Your task to perform on an android device: change the clock display to show seconds Image 0: 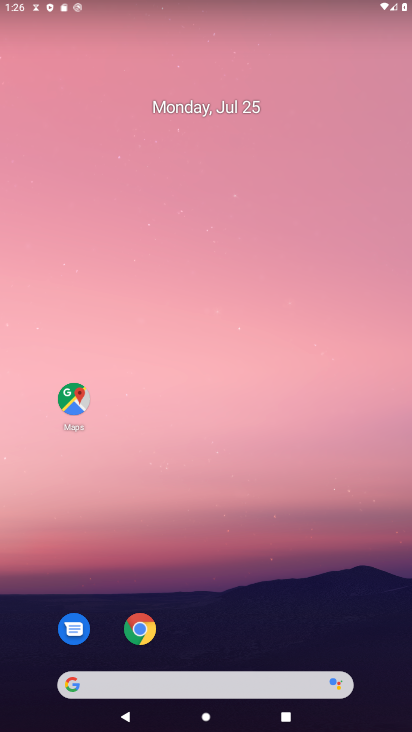
Step 0: drag from (205, 634) to (307, 147)
Your task to perform on an android device: change the clock display to show seconds Image 1: 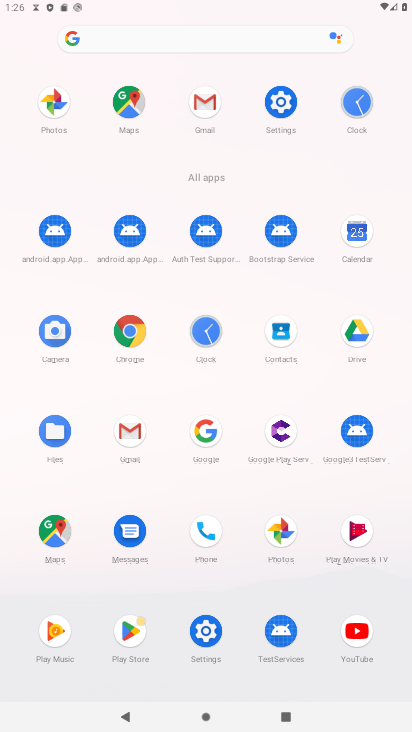
Step 1: click (199, 333)
Your task to perform on an android device: change the clock display to show seconds Image 2: 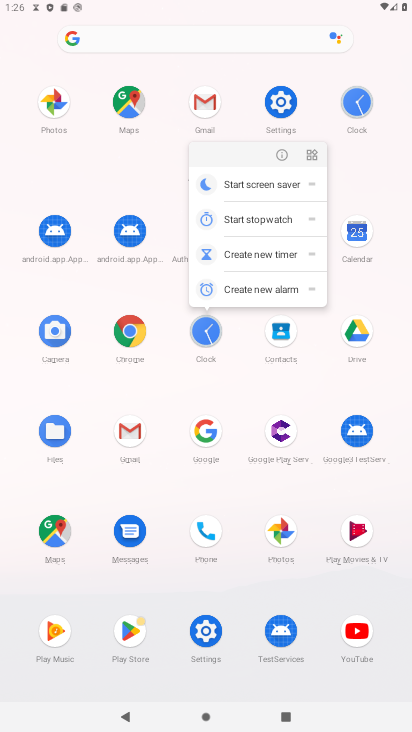
Step 2: click (283, 160)
Your task to perform on an android device: change the clock display to show seconds Image 3: 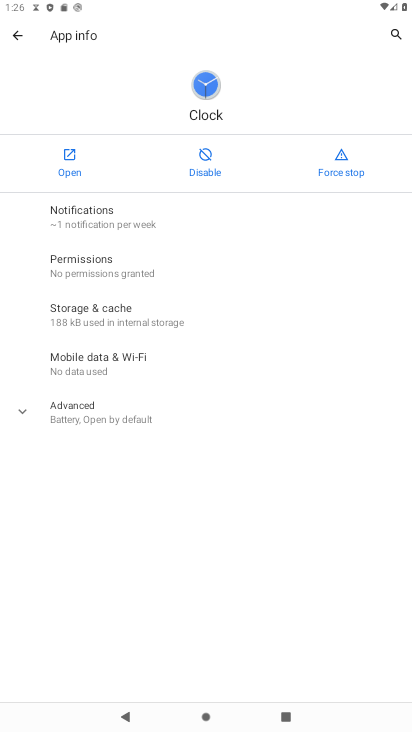
Step 3: click (280, 158)
Your task to perform on an android device: change the clock display to show seconds Image 4: 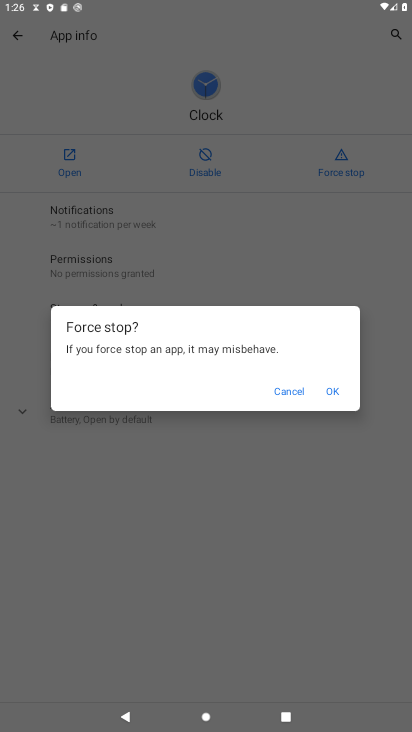
Step 4: click (168, 84)
Your task to perform on an android device: change the clock display to show seconds Image 5: 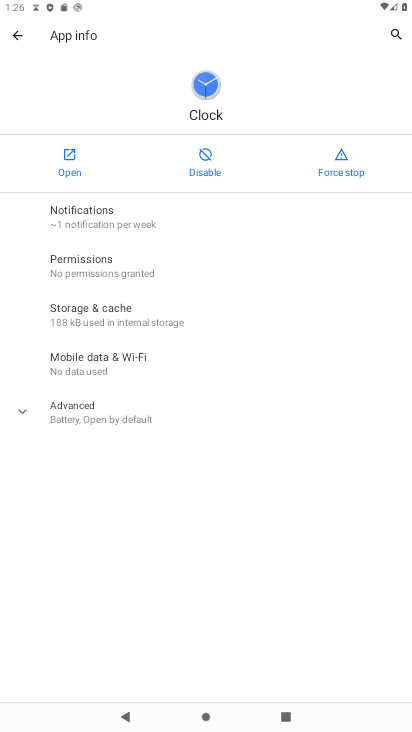
Step 5: click (59, 169)
Your task to perform on an android device: change the clock display to show seconds Image 6: 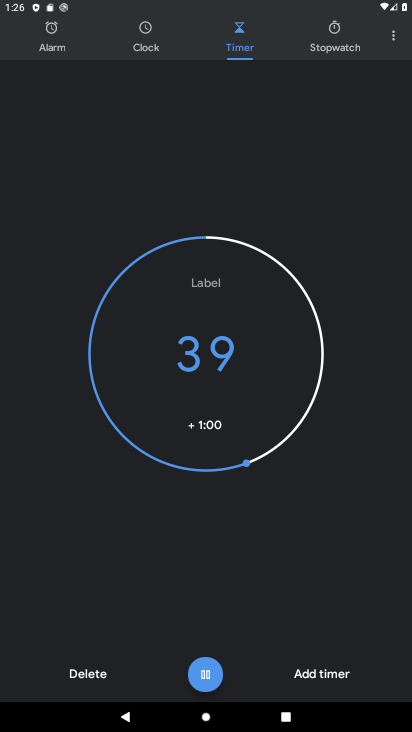
Step 6: drag from (188, 621) to (233, 334)
Your task to perform on an android device: change the clock display to show seconds Image 7: 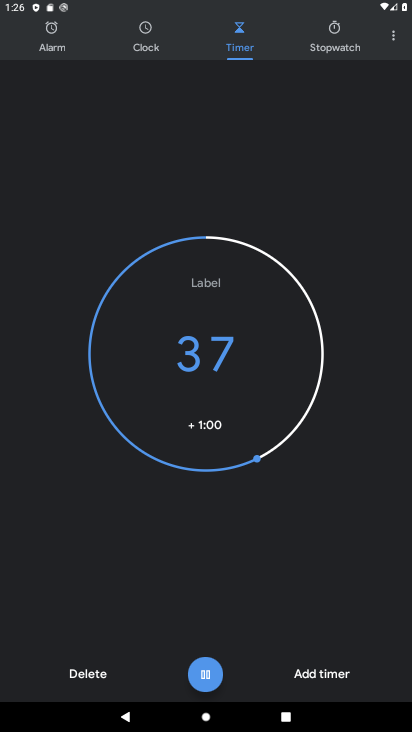
Step 7: click (394, 37)
Your task to perform on an android device: change the clock display to show seconds Image 8: 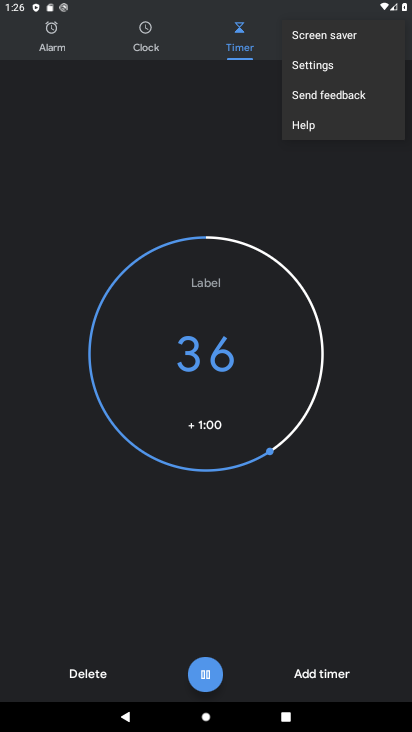
Step 8: click (344, 67)
Your task to perform on an android device: change the clock display to show seconds Image 9: 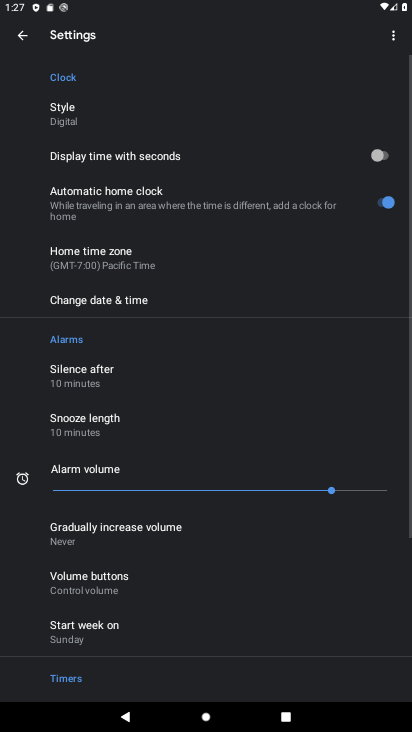
Step 9: click (119, 163)
Your task to perform on an android device: change the clock display to show seconds Image 10: 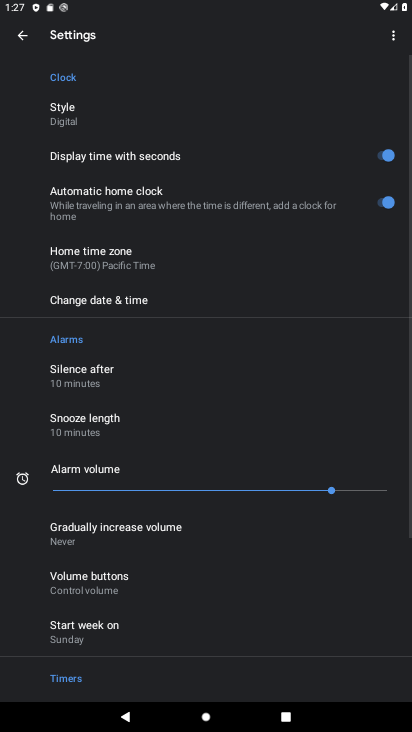
Step 10: task complete